Your task to perform on an android device: set the timer Image 0: 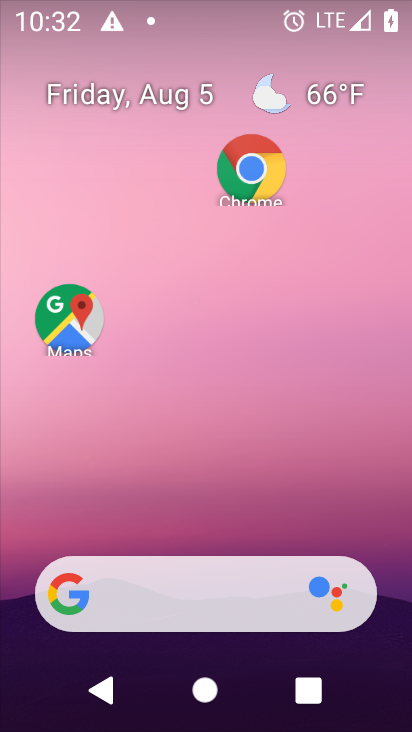
Step 0: drag from (175, 539) to (156, 133)
Your task to perform on an android device: set the timer Image 1: 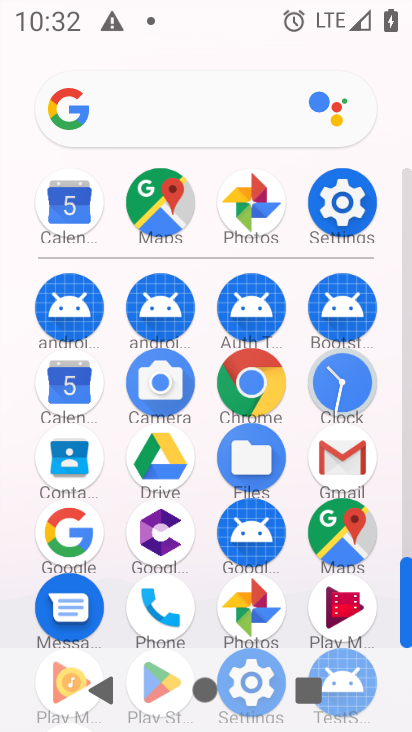
Step 1: click (327, 369)
Your task to perform on an android device: set the timer Image 2: 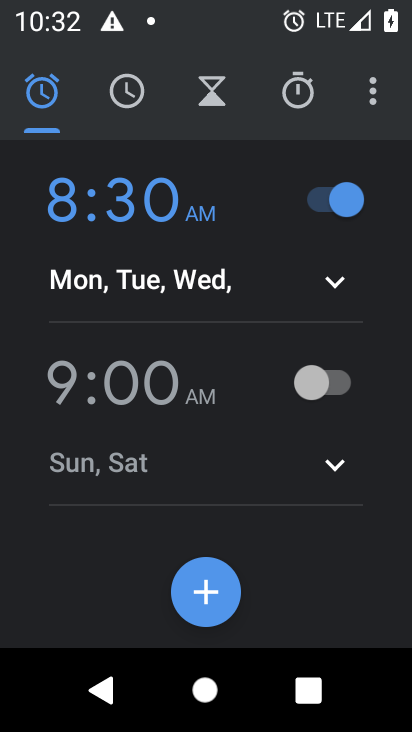
Step 2: click (164, 105)
Your task to perform on an android device: set the timer Image 3: 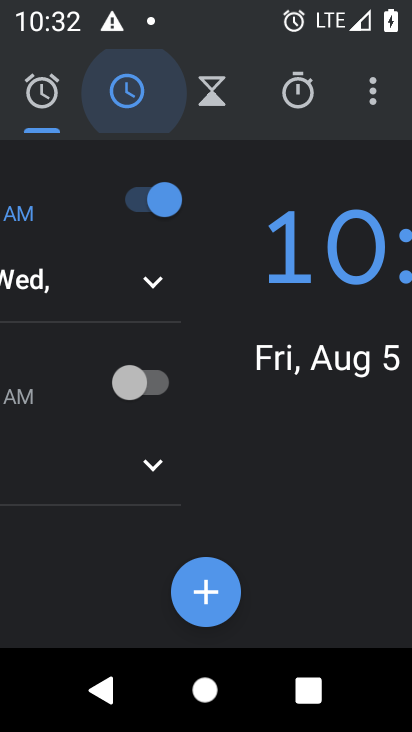
Step 3: click (198, 116)
Your task to perform on an android device: set the timer Image 4: 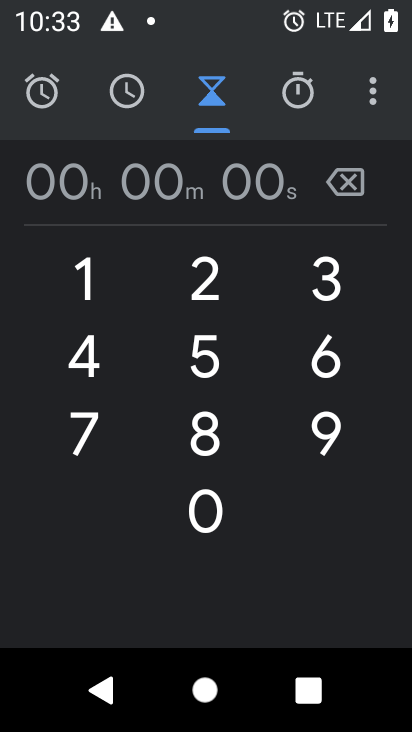
Step 4: type "11"
Your task to perform on an android device: set the timer Image 5: 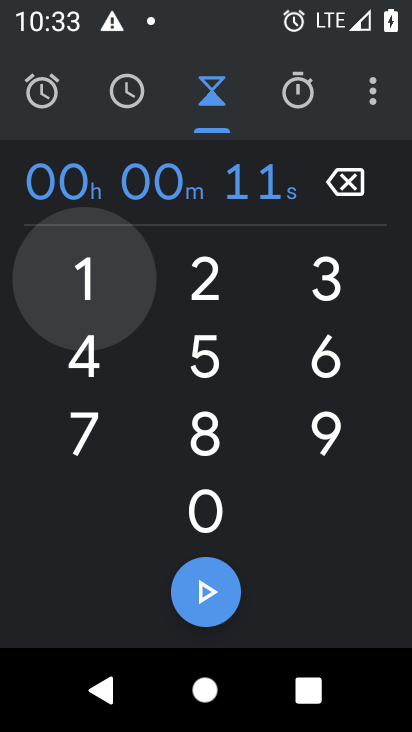
Step 5: click (210, 606)
Your task to perform on an android device: set the timer Image 6: 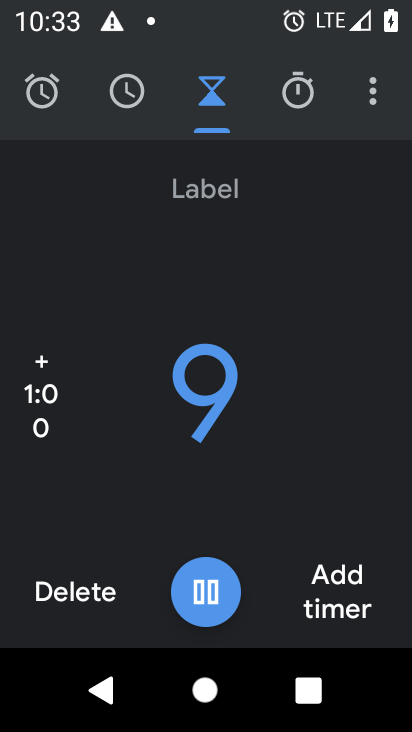
Step 6: task complete